Your task to perform on an android device: Open the web browser Image 0: 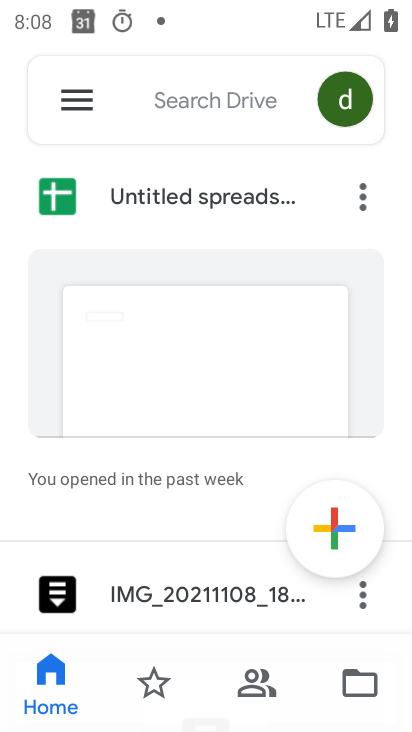
Step 0: press home button
Your task to perform on an android device: Open the web browser Image 1: 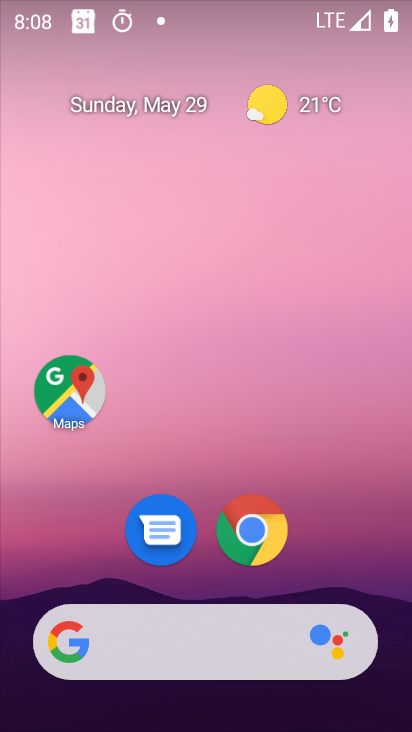
Step 1: drag from (302, 655) to (255, 183)
Your task to perform on an android device: Open the web browser Image 2: 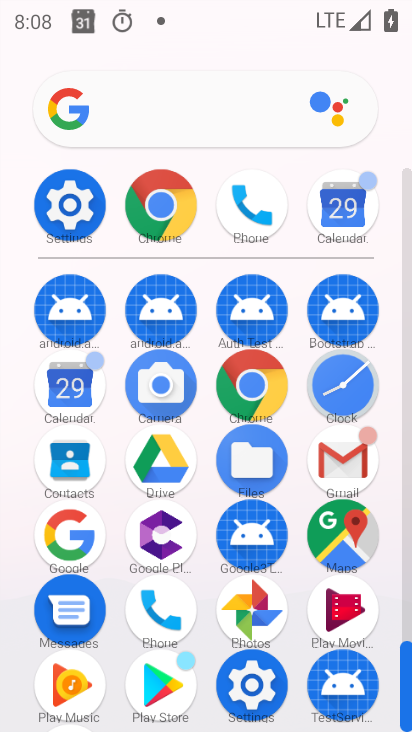
Step 2: click (180, 188)
Your task to perform on an android device: Open the web browser Image 3: 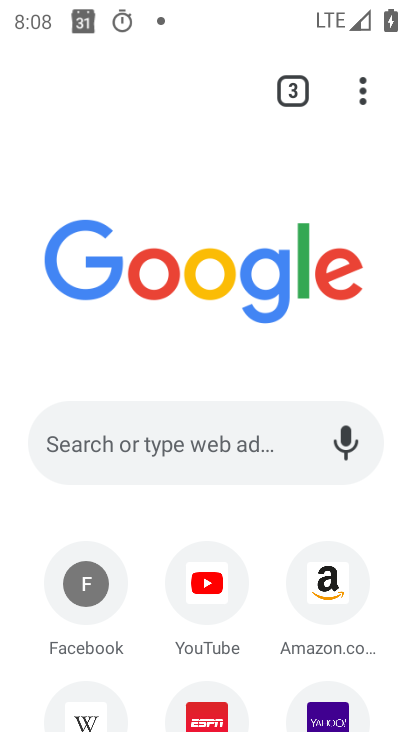
Step 3: click (187, 429)
Your task to perform on an android device: Open the web browser Image 4: 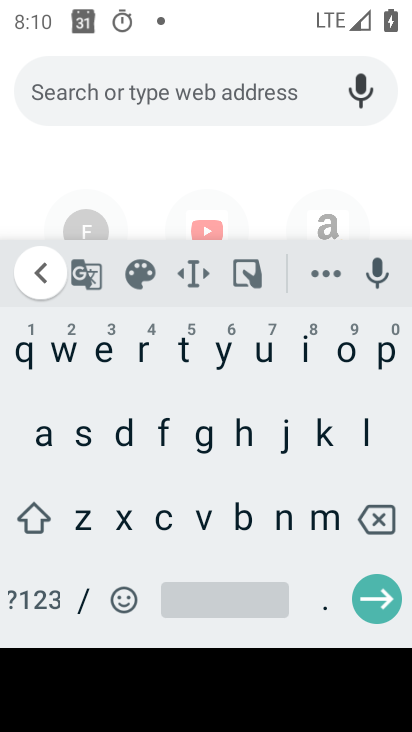
Step 4: task complete